Your task to perform on an android device: star an email in the gmail app Image 0: 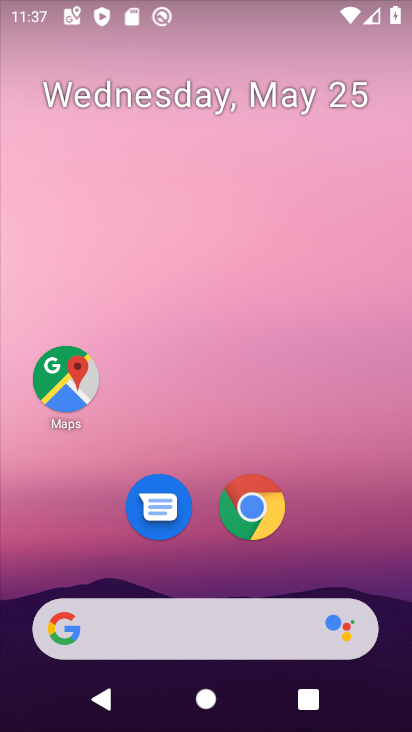
Step 0: drag from (332, 488) to (272, 29)
Your task to perform on an android device: star an email in the gmail app Image 1: 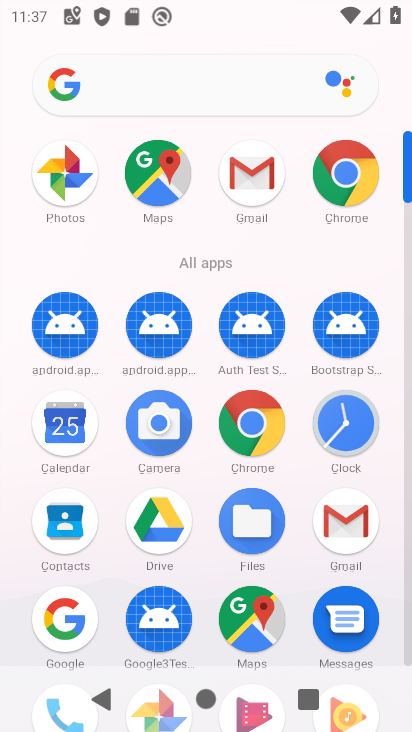
Step 1: click (251, 173)
Your task to perform on an android device: star an email in the gmail app Image 2: 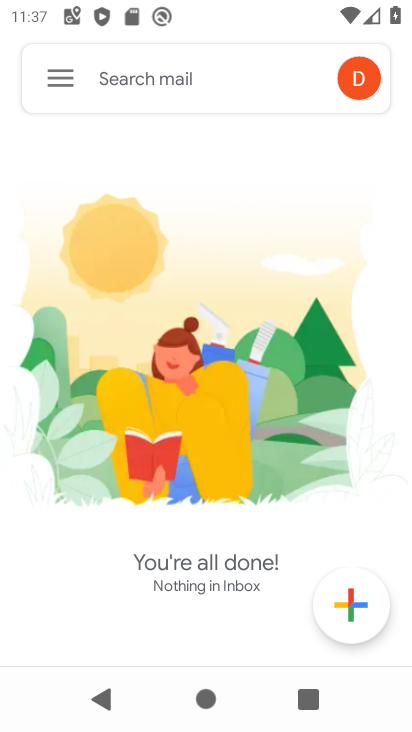
Step 2: click (60, 80)
Your task to perform on an android device: star an email in the gmail app Image 3: 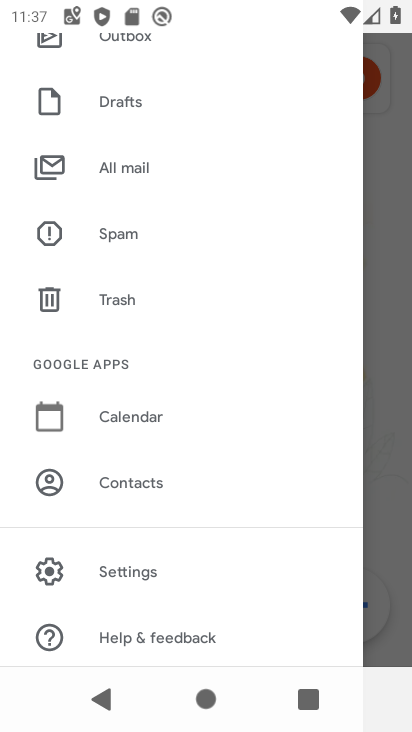
Step 3: click (144, 174)
Your task to perform on an android device: star an email in the gmail app Image 4: 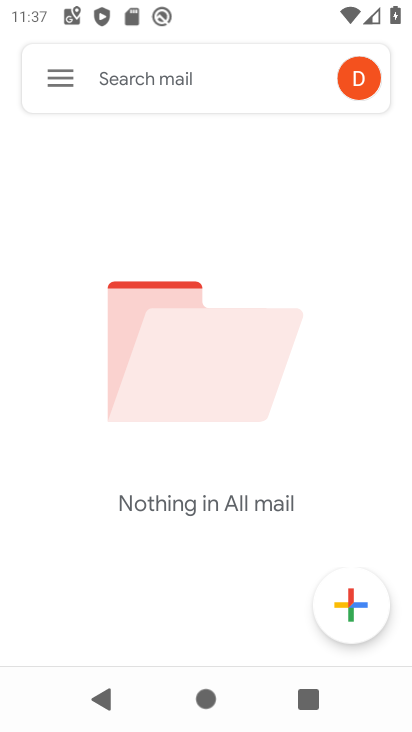
Step 4: click (56, 84)
Your task to perform on an android device: star an email in the gmail app Image 5: 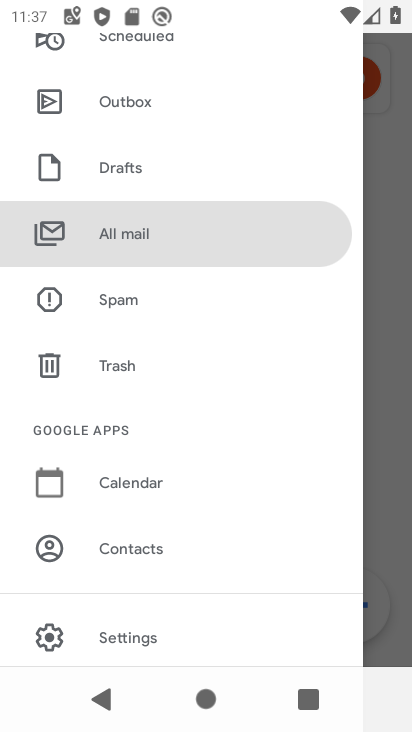
Step 5: drag from (183, 188) to (226, 309)
Your task to perform on an android device: star an email in the gmail app Image 6: 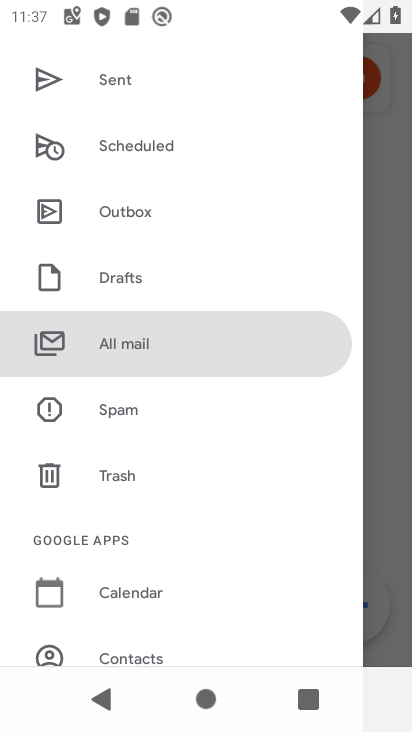
Step 6: drag from (192, 201) to (217, 350)
Your task to perform on an android device: star an email in the gmail app Image 7: 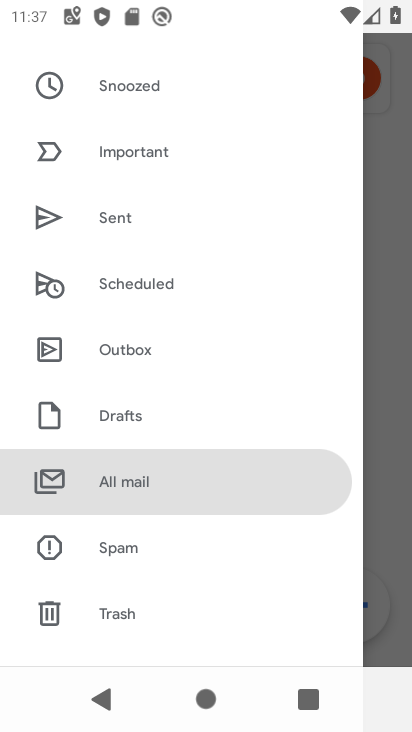
Step 7: drag from (188, 226) to (199, 329)
Your task to perform on an android device: star an email in the gmail app Image 8: 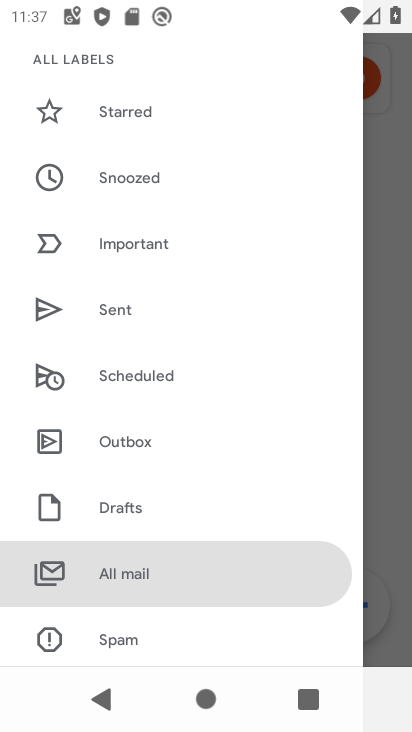
Step 8: drag from (191, 224) to (212, 325)
Your task to perform on an android device: star an email in the gmail app Image 9: 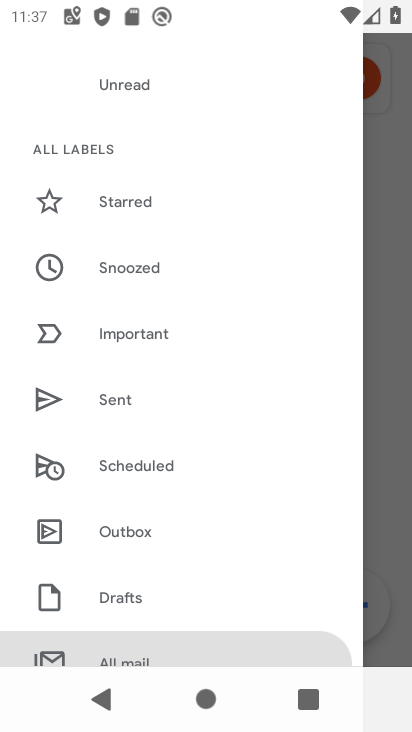
Step 9: drag from (188, 230) to (226, 394)
Your task to perform on an android device: star an email in the gmail app Image 10: 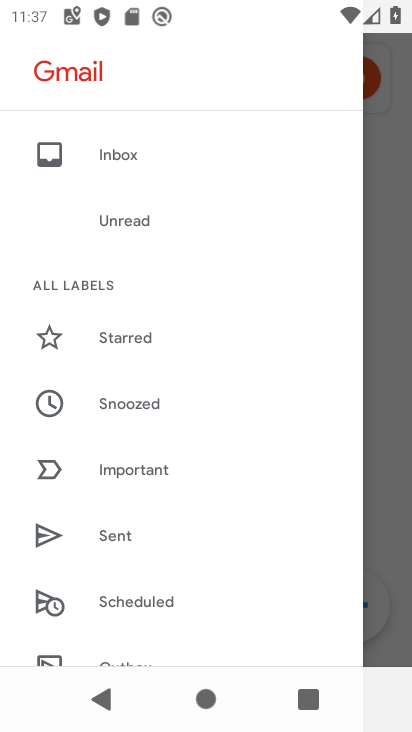
Step 10: click (152, 335)
Your task to perform on an android device: star an email in the gmail app Image 11: 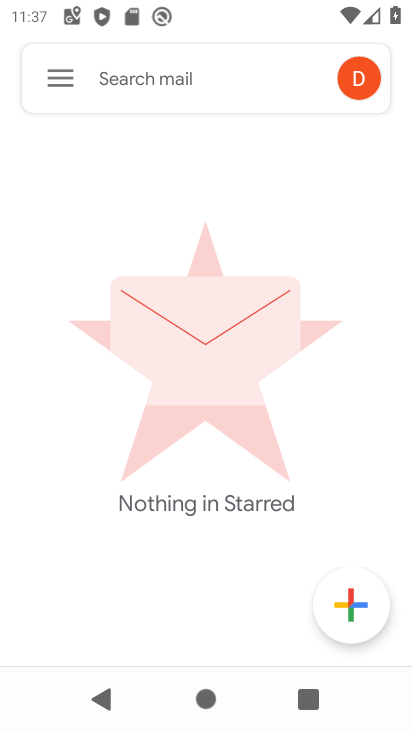
Step 11: task complete